Your task to perform on an android device: Open Amazon Image 0: 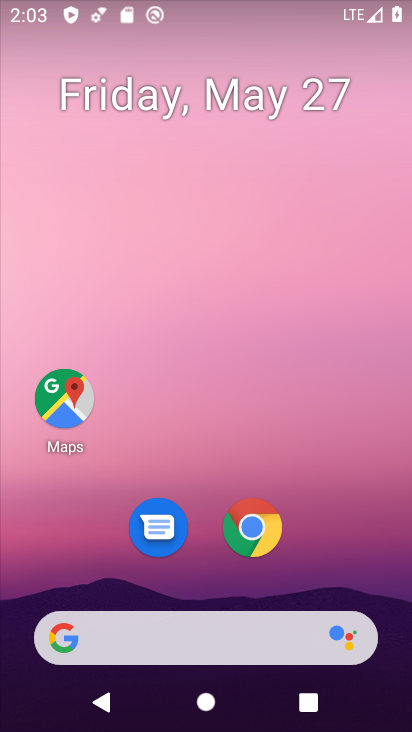
Step 0: click (264, 535)
Your task to perform on an android device: Open Amazon Image 1: 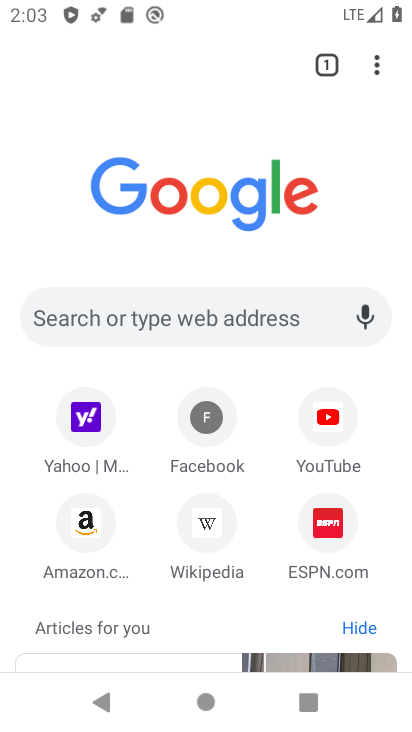
Step 1: click (92, 530)
Your task to perform on an android device: Open Amazon Image 2: 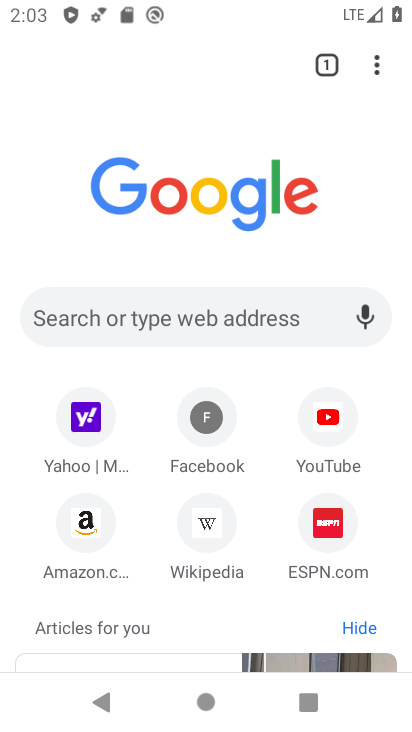
Step 2: click (81, 521)
Your task to perform on an android device: Open Amazon Image 3: 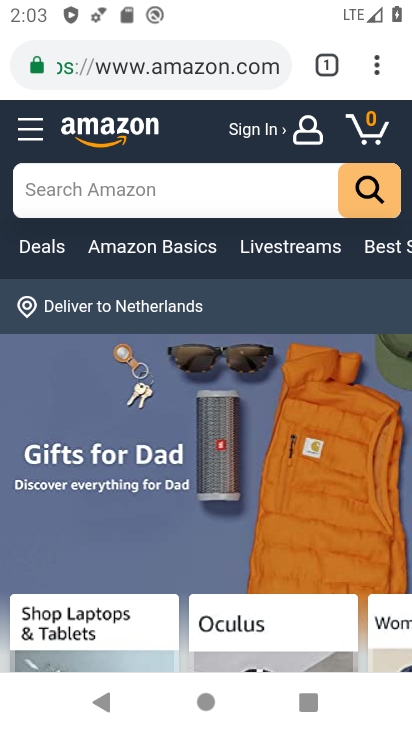
Step 3: task complete